Your task to perform on an android device: turn off notifications settings in the gmail app Image 0: 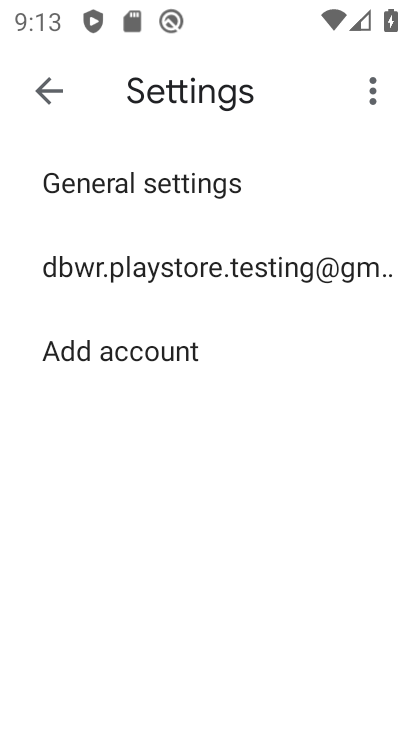
Step 0: press home button
Your task to perform on an android device: turn off notifications settings in the gmail app Image 1: 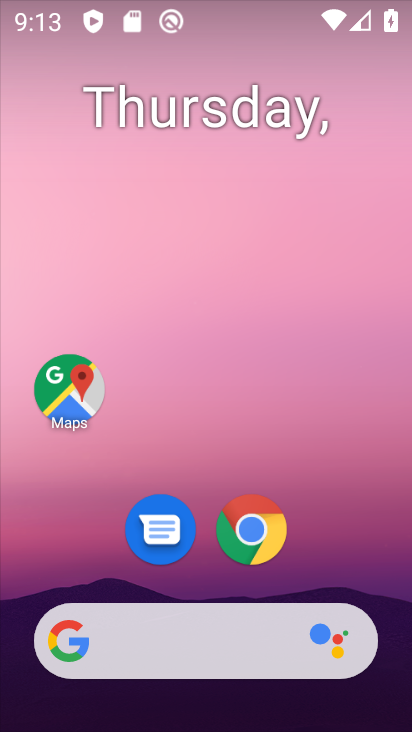
Step 1: drag from (335, 555) to (270, 55)
Your task to perform on an android device: turn off notifications settings in the gmail app Image 2: 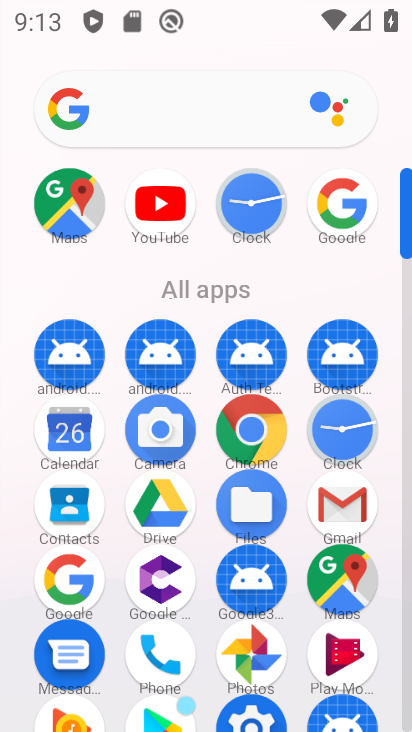
Step 2: drag from (207, 459) to (207, 304)
Your task to perform on an android device: turn off notifications settings in the gmail app Image 3: 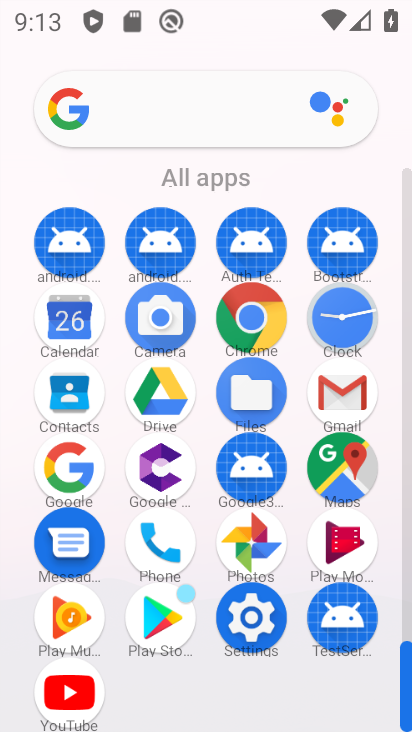
Step 3: click (343, 396)
Your task to perform on an android device: turn off notifications settings in the gmail app Image 4: 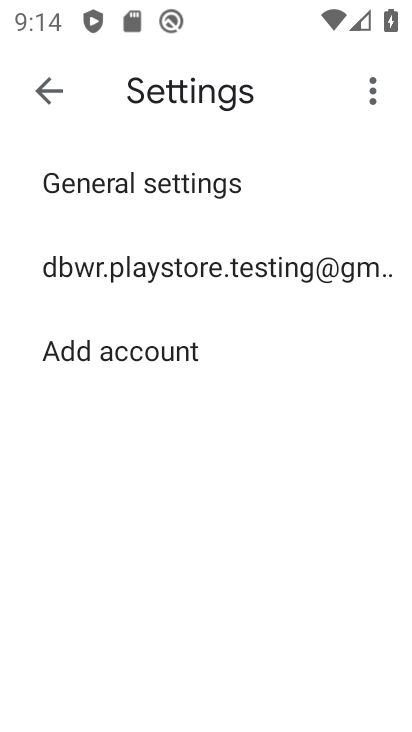
Step 4: click (276, 268)
Your task to perform on an android device: turn off notifications settings in the gmail app Image 5: 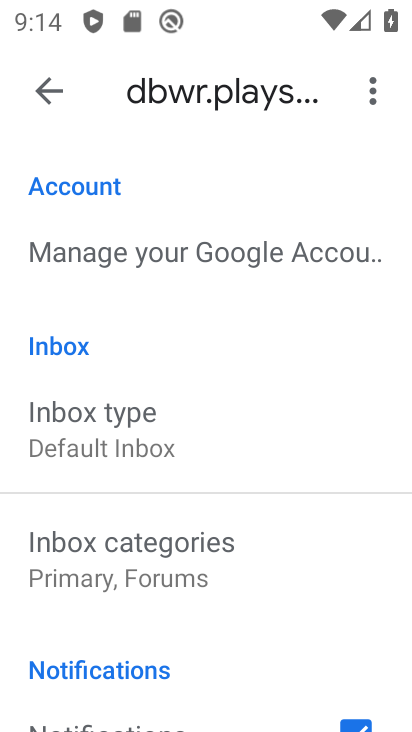
Step 5: drag from (175, 511) to (230, 419)
Your task to perform on an android device: turn off notifications settings in the gmail app Image 6: 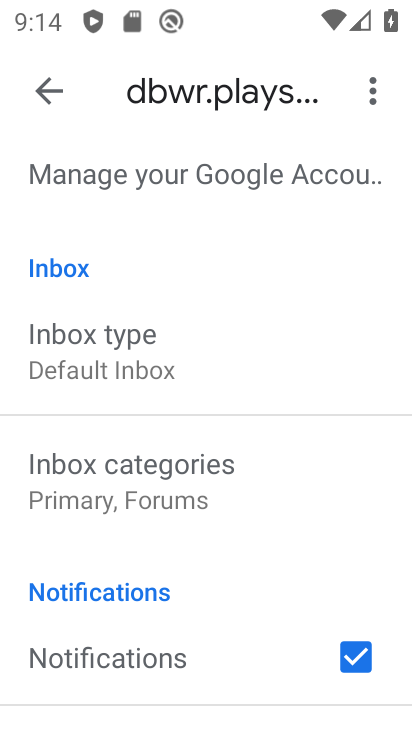
Step 6: drag from (141, 542) to (244, 419)
Your task to perform on an android device: turn off notifications settings in the gmail app Image 7: 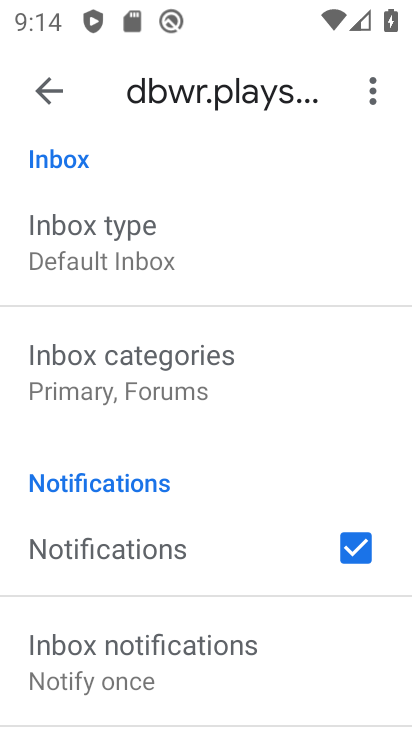
Step 7: drag from (155, 521) to (240, 428)
Your task to perform on an android device: turn off notifications settings in the gmail app Image 8: 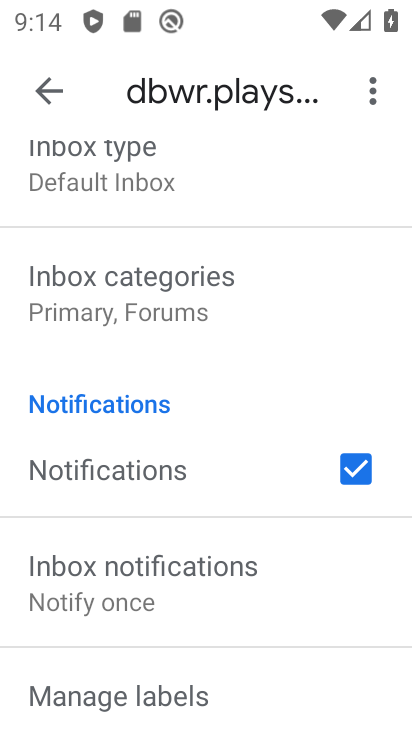
Step 8: drag from (139, 532) to (211, 429)
Your task to perform on an android device: turn off notifications settings in the gmail app Image 9: 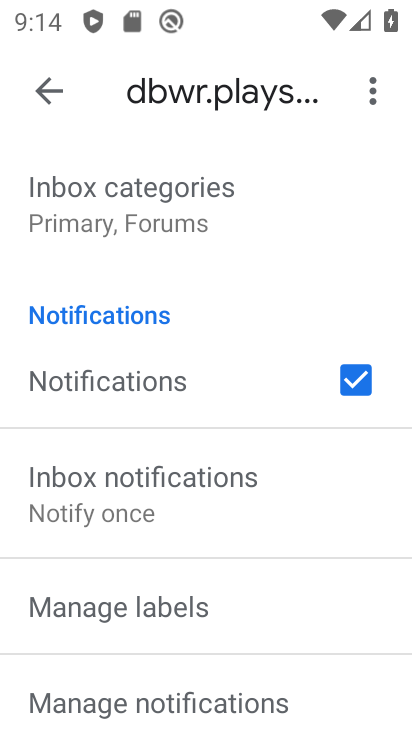
Step 9: drag from (108, 535) to (187, 418)
Your task to perform on an android device: turn off notifications settings in the gmail app Image 10: 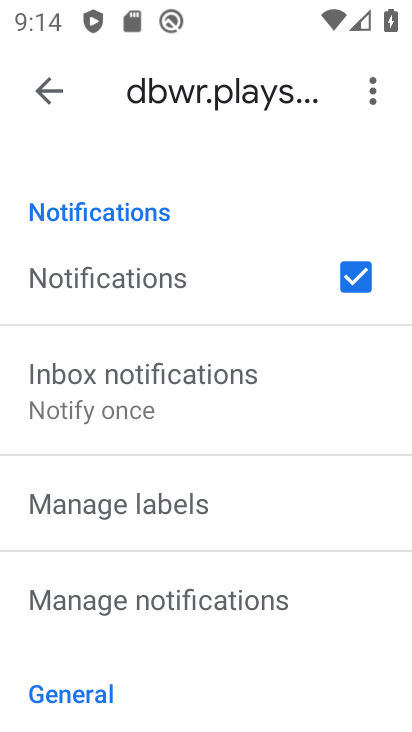
Step 10: drag from (115, 491) to (225, 365)
Your task to perform on an android device: turn off notifications settings in the gmail app Image 11: 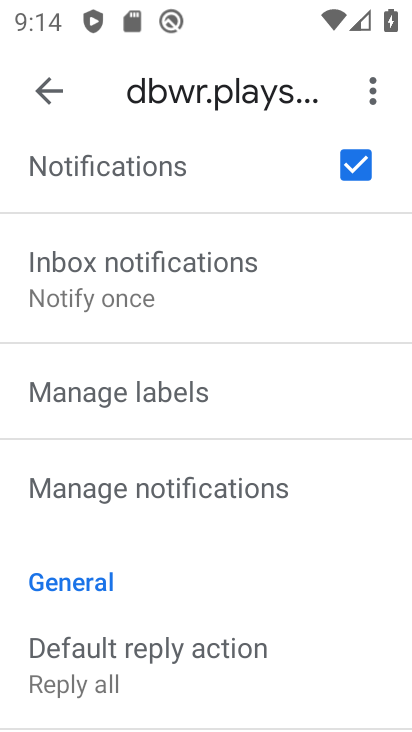
Step 11: click (228, 487)
Your task to perform on an android device: turn off notifications settings in the gmail app Image 12: 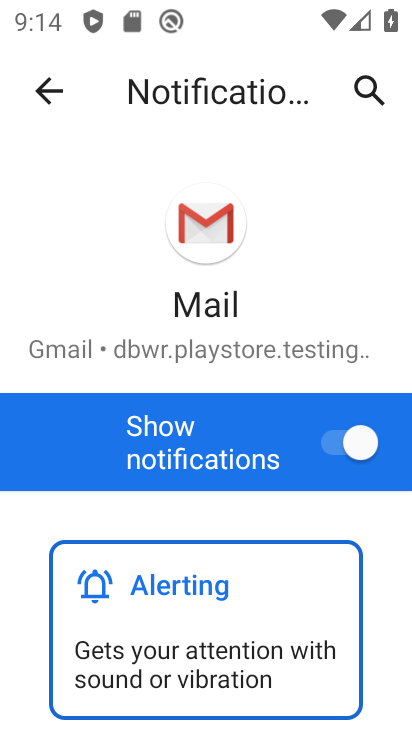
Step 12: click (338, 447)
Your task to perform on an android device: turn off notifications settings in the gmail app Image 13: 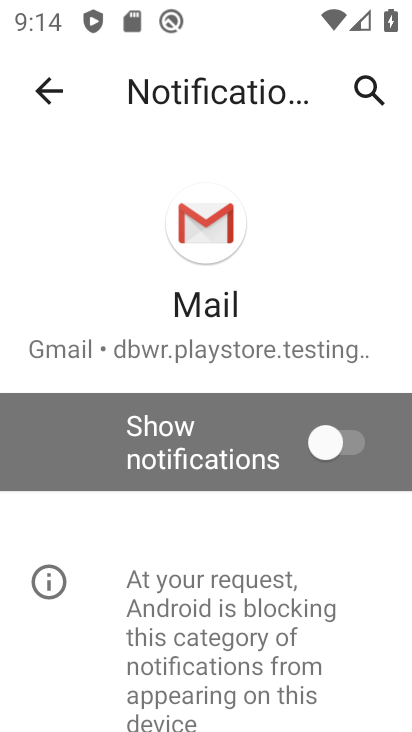
Step 13: task complete